Your task to perform on an android device: turn off location Image 0: 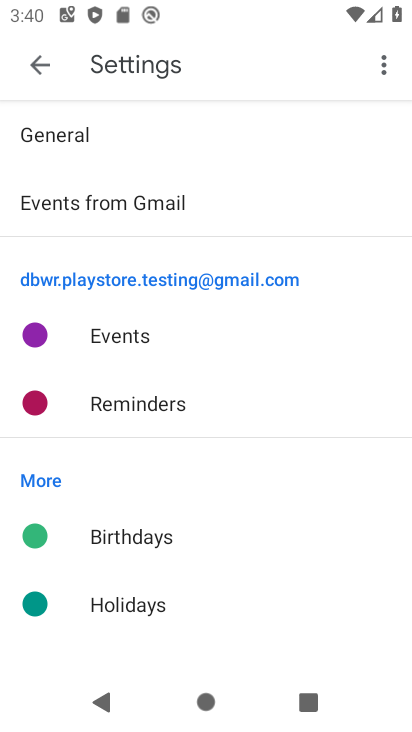
Step 0: press home button
Your task to perform on an android device: turn off location Image 1: 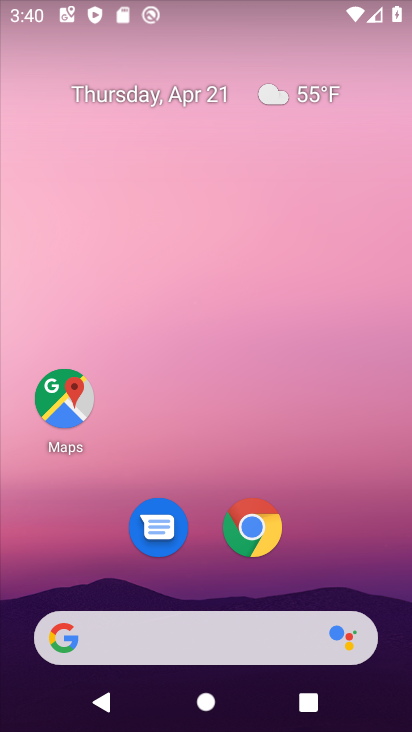
Step 1: drag from (372, 571) to (327, 202)
Your task to perform on an android device: turn off location Image 2: 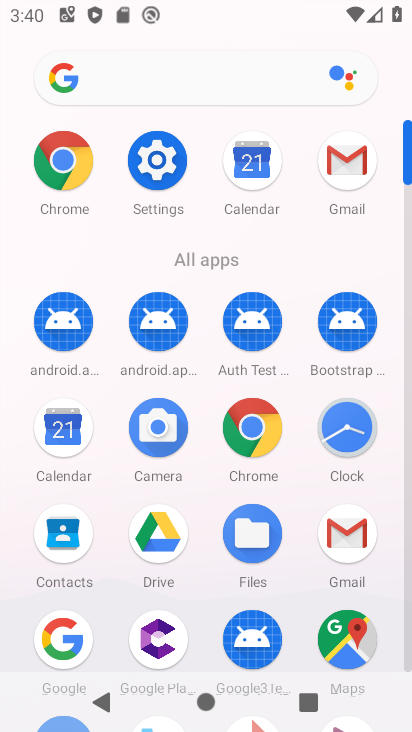
Step 2: click (167, 143)
Your task to perform on an android device: turn off location Image 3: 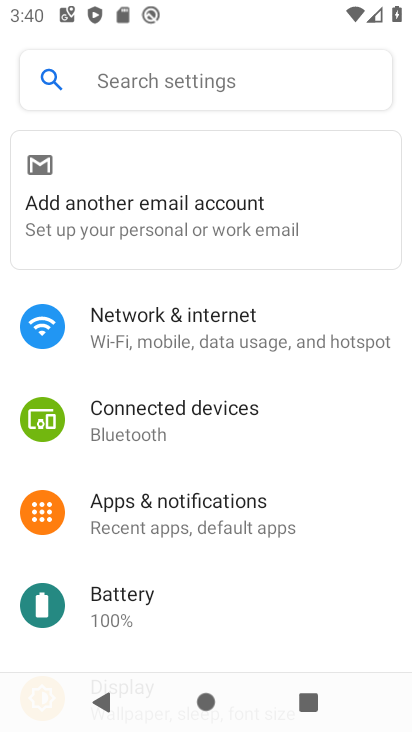
Step 3: drag from (169, 638) to (119, 225)
Your task to perform on an android device: turn off location Image 4: 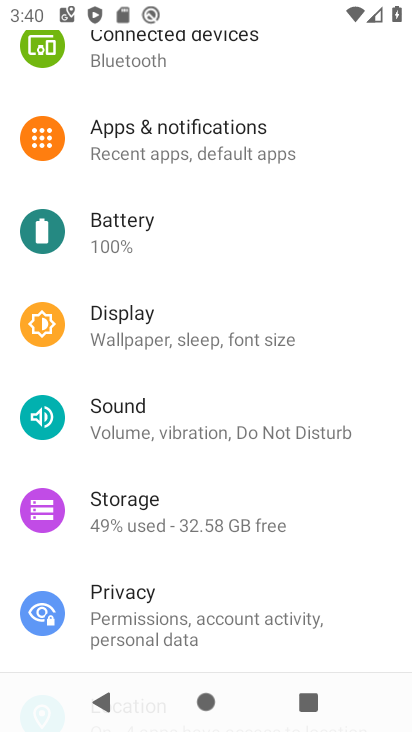
Step 4: drag from (177, 519) to (182, 261)
Your task to perform on an android device: turn off location Image 5: 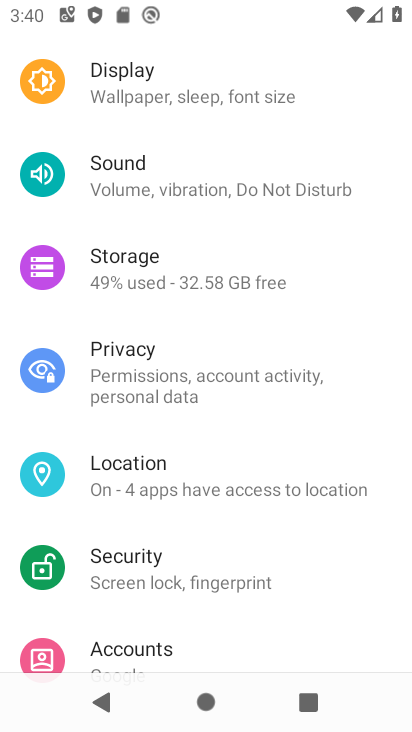
Step 5: click (258, 475)
Your task to perform on an android device: turn off location Image 6: 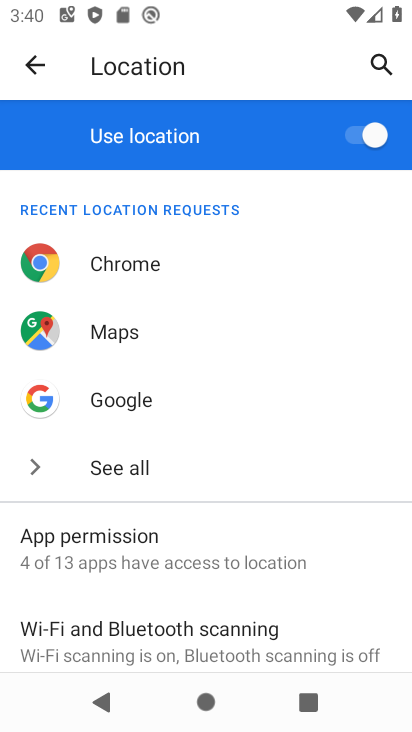
Step 6: click (365, 123)
Your task to perform on an android device: turn off location Image 7: 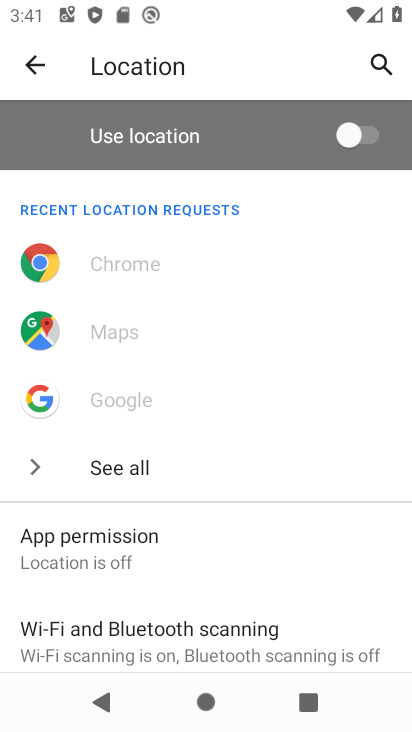
Step 7: task complete